Your task to perform on an android device: turn off priority inbox in the gmail app Image 0: 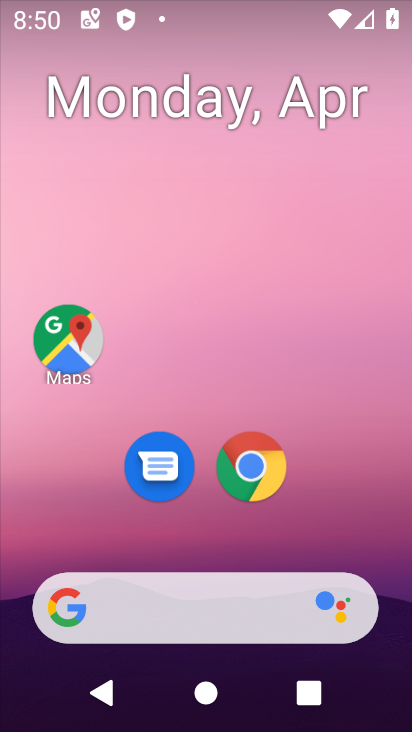
Step 0: drag from (192, 557) to (279, 170)
Your task to perform on an android device: turn off priority inbox in the gmail app Image 1: 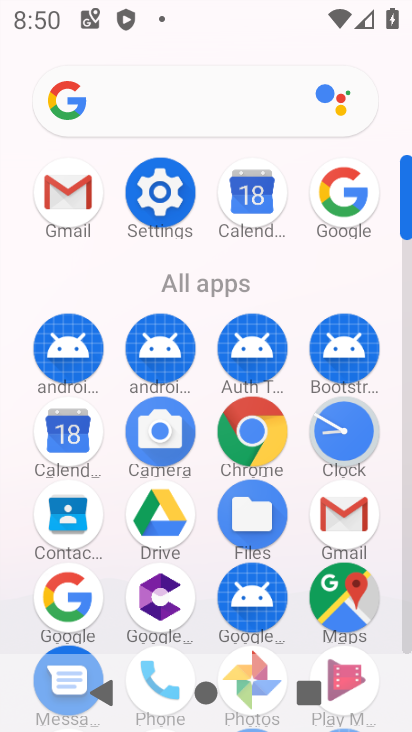
Step 1: click (68, 218)
Your task to perform on an android device: turn off priority inbox in the gmail app Image 2: 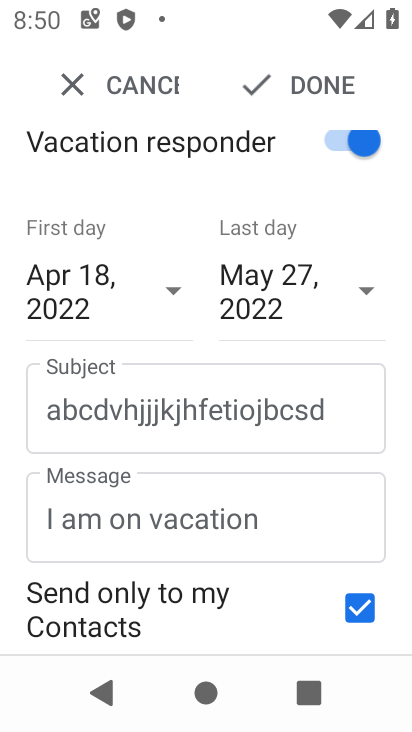
Step 2: press back button
Your task to perform on an android device: turn off priority inbox in the gmail app Image 3: 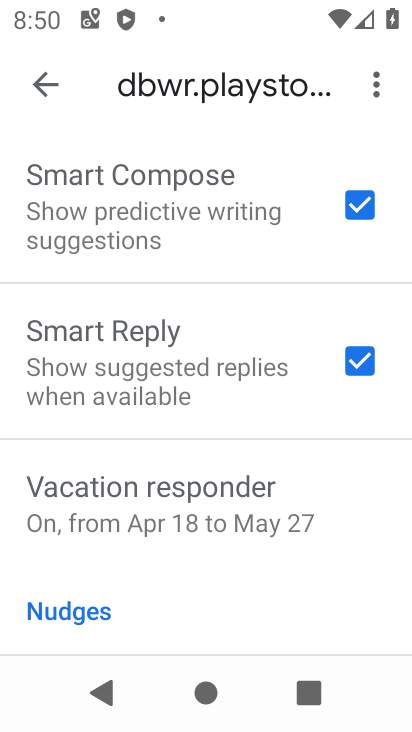
Step 3: press back button
Your task to perform on an android device: turn off priority inbox in the gmail app Image 4: 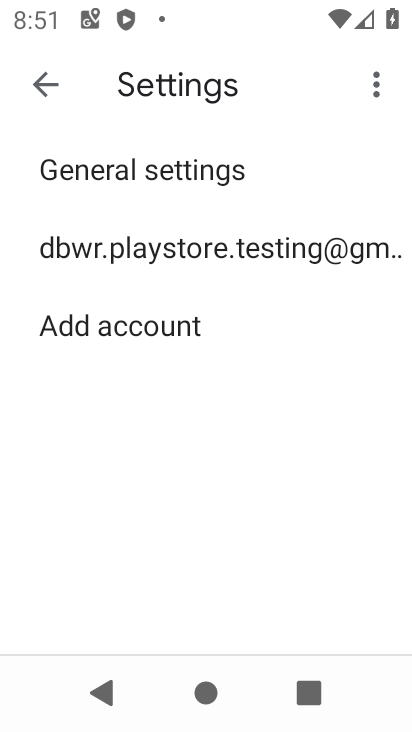
Step 4: click (236, 244)
Your task to perform on an android device: turn off priority inbox in the gmail app Image 5: 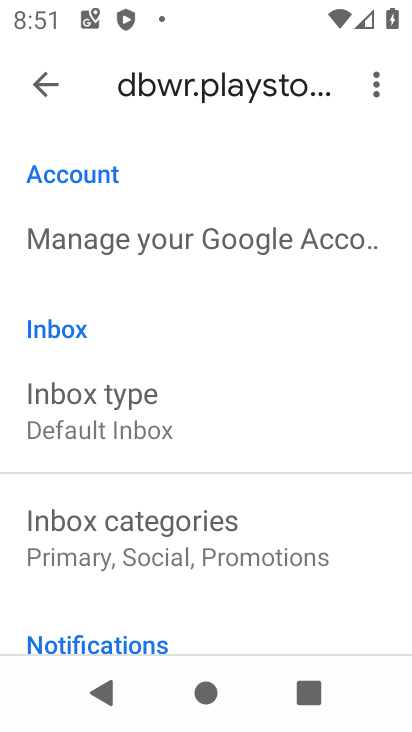
Step 5: click (120, 424)
Your task to perform on an android device: turn off priority inbox in the gmail app Image 6: 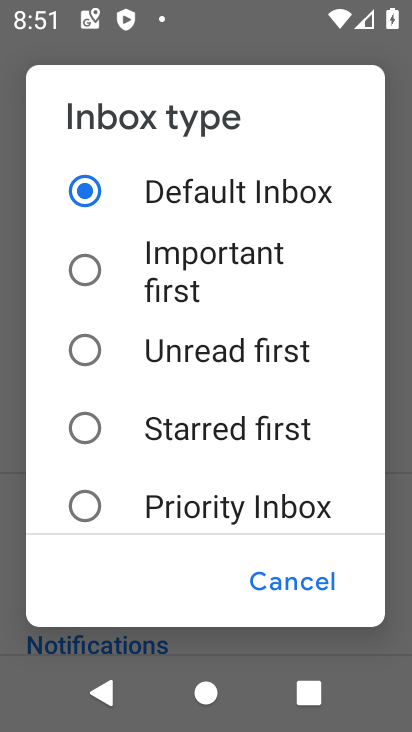
Step 6: task complete